Your task to perform on an android device: change timer sound Image 0: 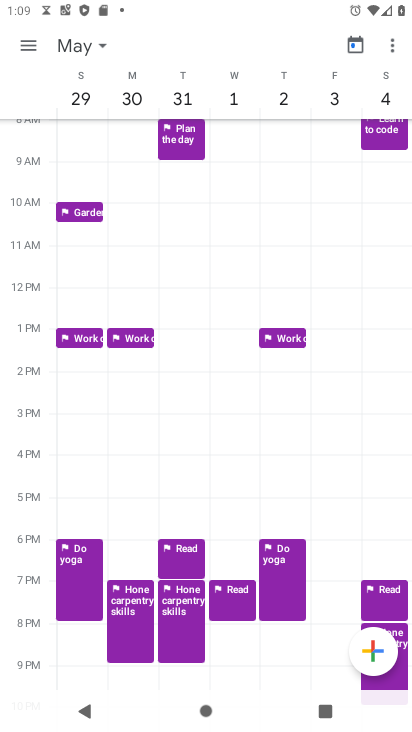
Step 0: press home button
Your task to perform on an android device: change timer sound Image 1: 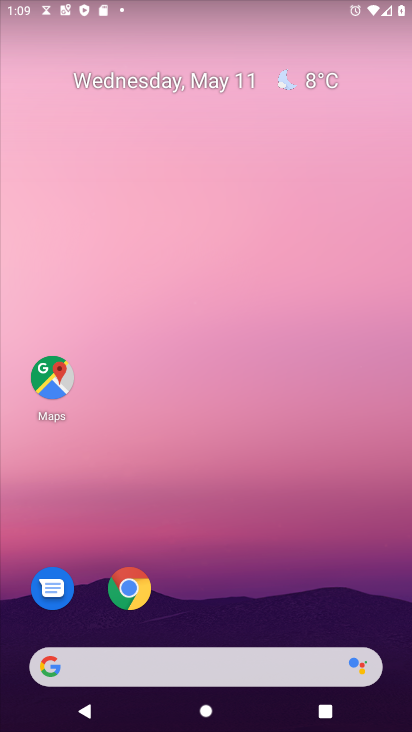
Step 1: drag from (319, 572) to (305, 36)
Your task to perform on an android device: change timer sound Image 2: 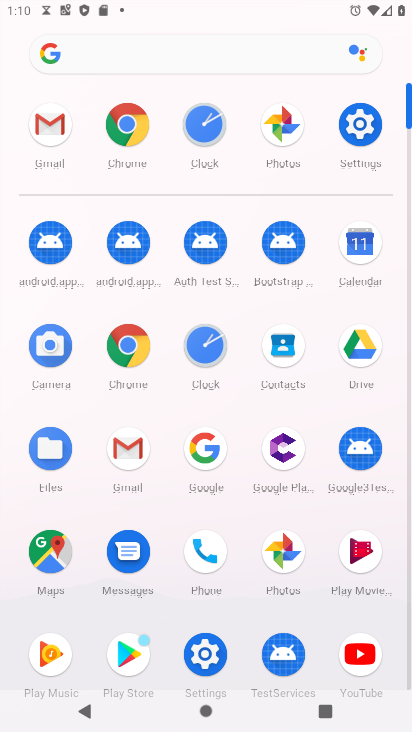
Step 2: click (204, 134)
Your task to perform on an android device: change timer sound Image 3: 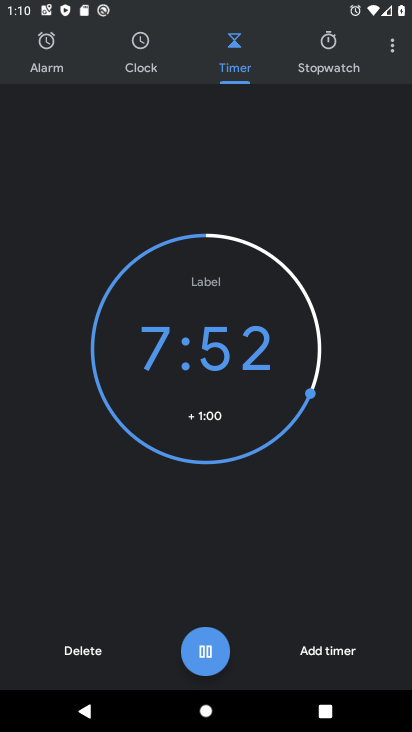
Step 3: click (388, 55)
Your task to perform on an android device: change timer sound Image 4: 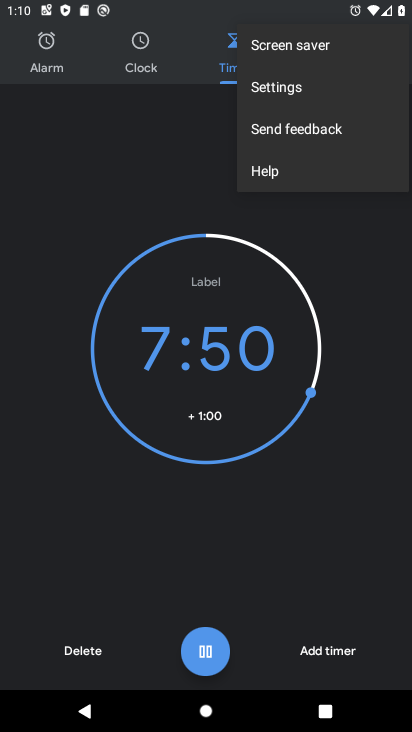
Step 4: click (289, 90)
Your task to perform on an android device: change timer sound Image 5: 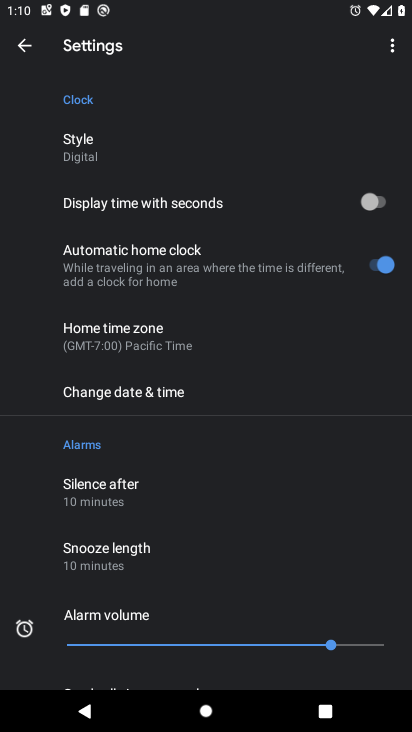
Step 5: drag from (175, 549) to (138, 161)
Your task to perform on an android device: change timer sound Image 6: 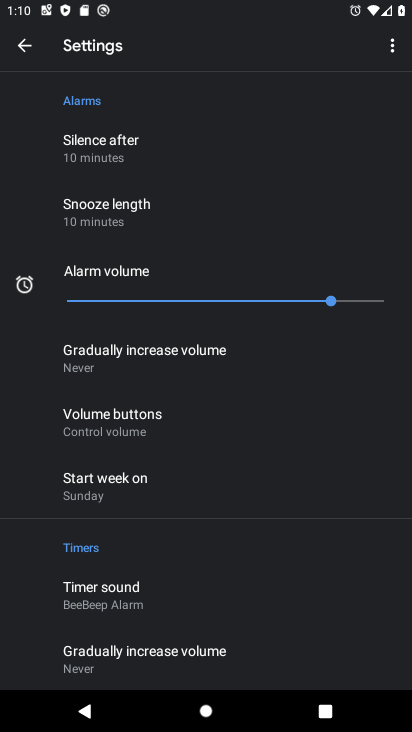
Step 6: drag from (199, 556) to (169, 223)
Your task to perform on an android device: change timer sound Image 7: 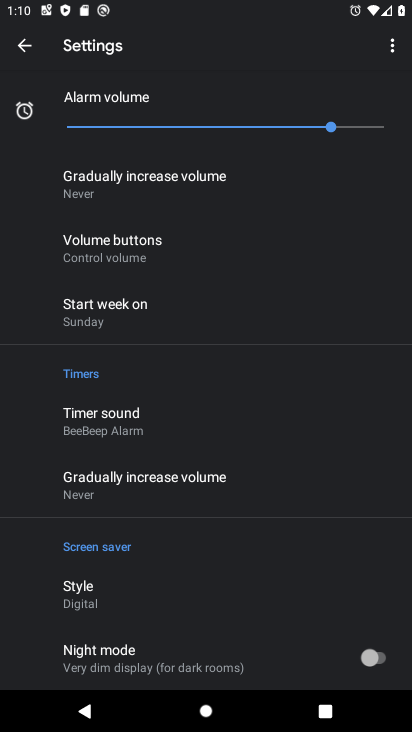
Step 7: click (102, 426)
Your task to perform on an android device: change timer sound Image 8: 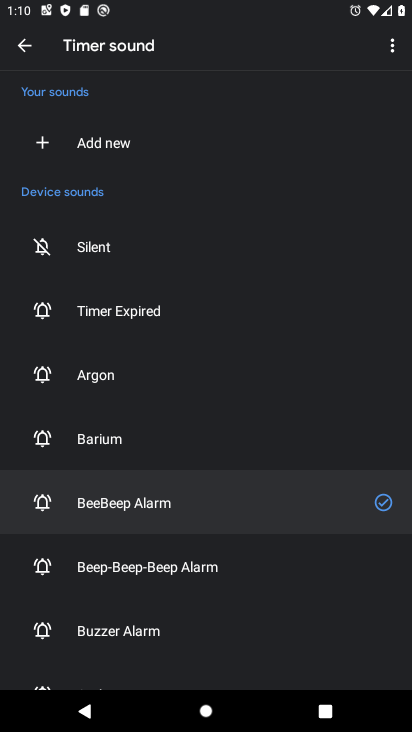
Step 8: click (94, 383)
Your task to perform on an android device: change timer sound Image 9: 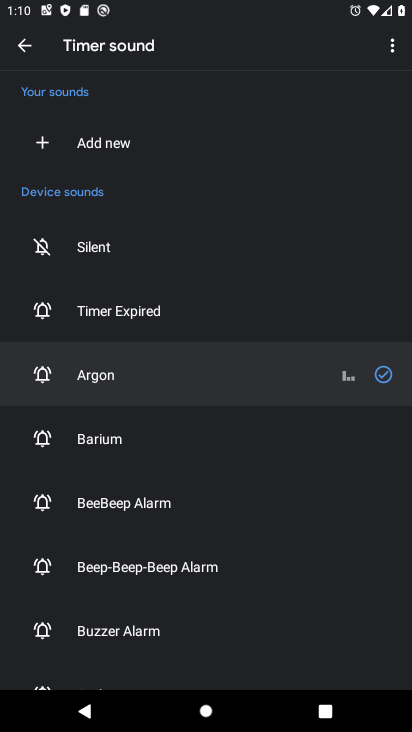
Step 9: task complete